Your task to perform on an android device: turn off location Image 0: 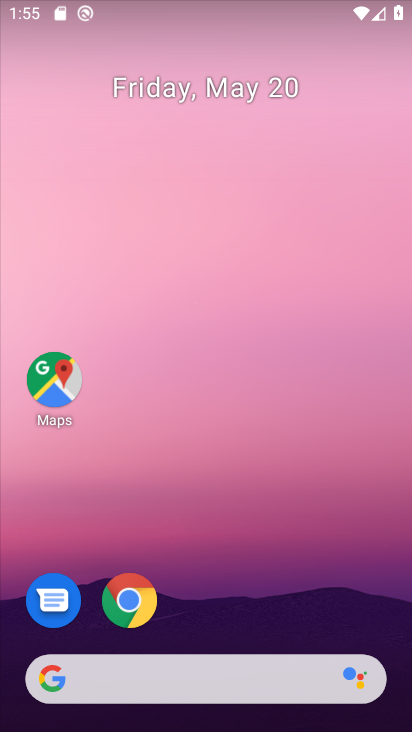
Step 0: drag from (297, 583) to (202, 0)
Your task to perform on an android device: turn off location Image 1: 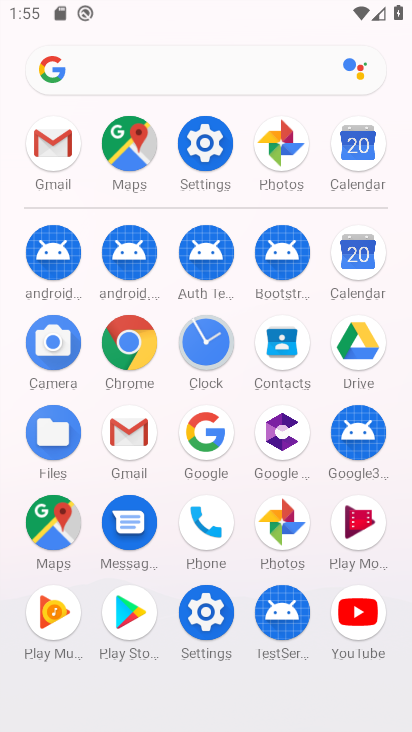
Step 1: click (192, 136)
Your task to perform on an android device: turn off location Image 2: 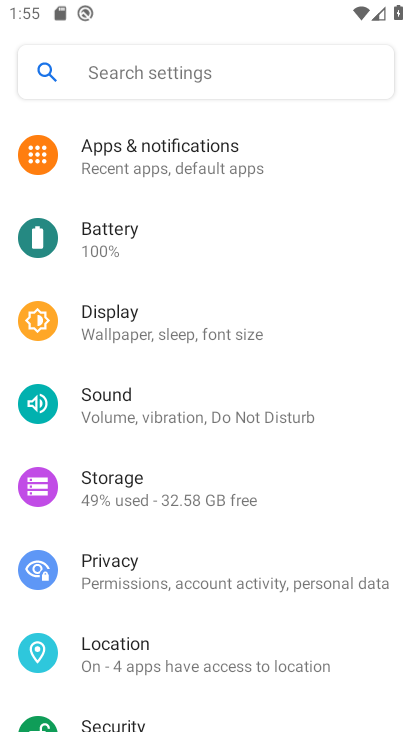
Step 2: click (197, 652)
Your task to perform on an android device: turn off location Image 3: 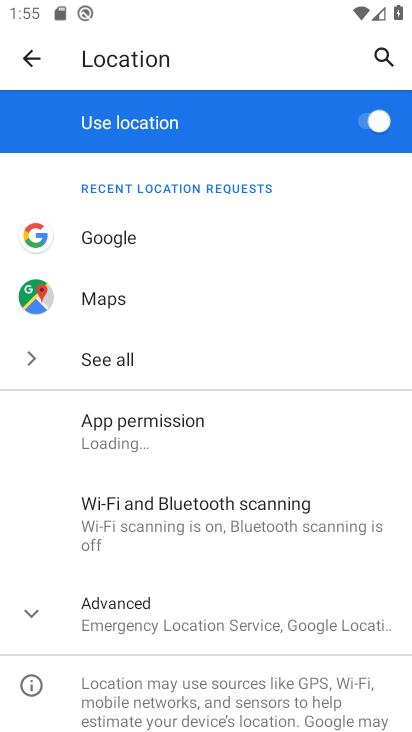
Step 3: click (382, 127)
Your task to perform on an android device: turn off location Image 4: 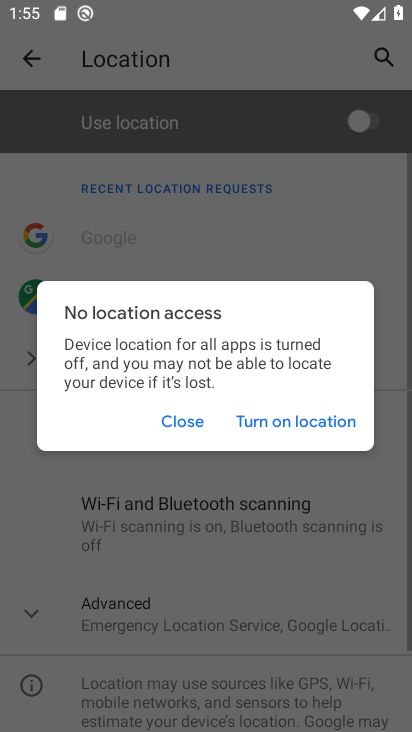
Step 4: task complete